Your task to perform on an android device: empty trash in the gmail app Image 0: 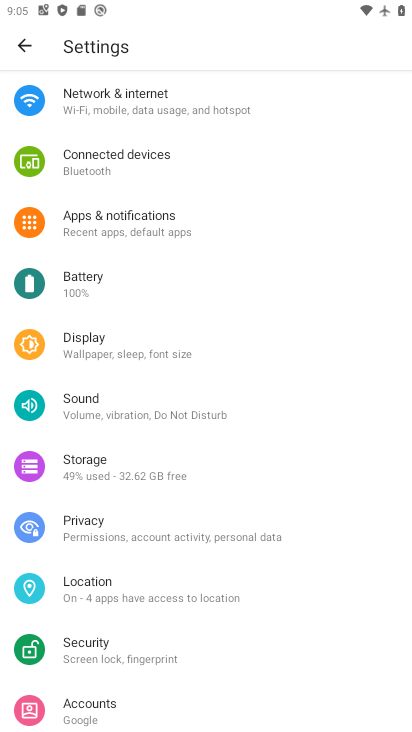
Step 0: press home button
Your task to perform on an android device: empty trash in the gmail app Image 1: 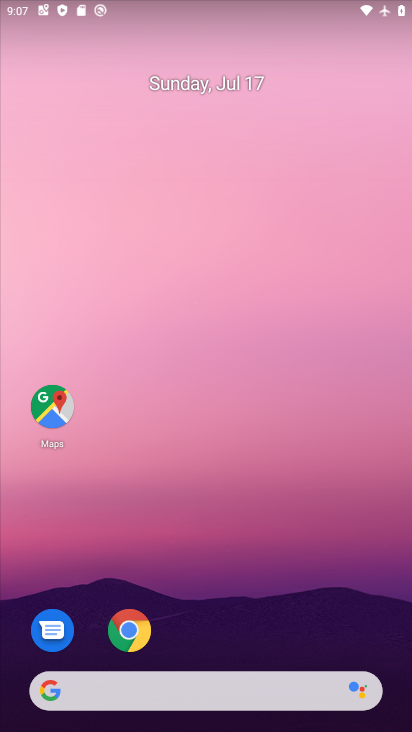
Step 1: drag from (272, 612) to (244, 364)
Your task to perform on an android device: empty trash in the gmail app Image 2: 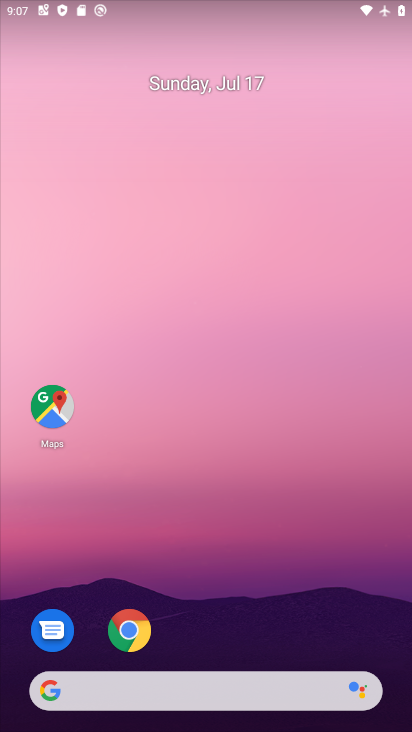
Step 2: drag from (218, 600) to (245, 114)
Your task to perform on an android device: empty trash in the gmail app Image 3: 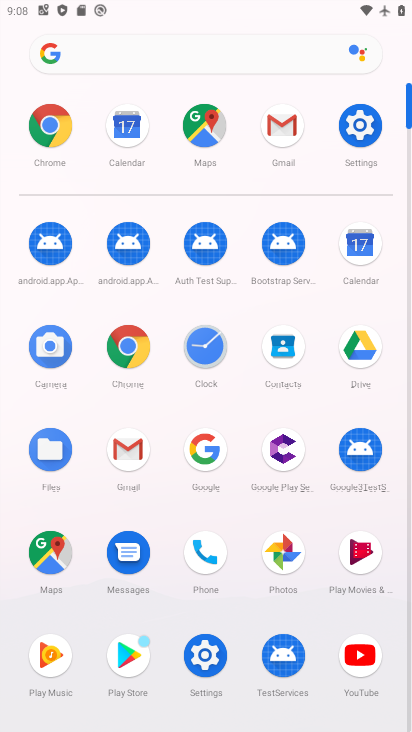
Step 3: click (277, 151)
Your task to perform on an android device: empty trash in the gmail app Image 4: 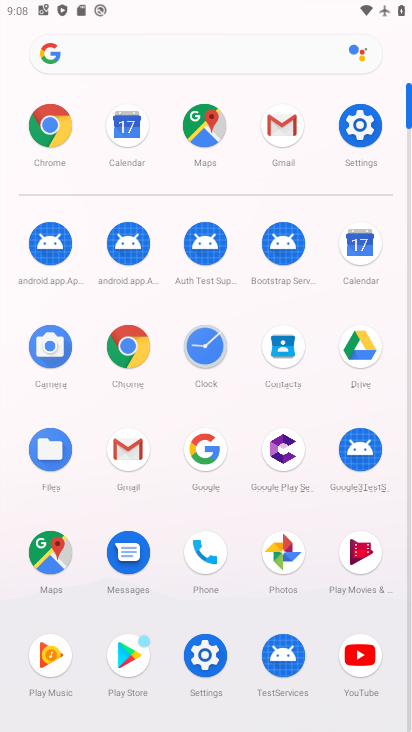
Step 4: click (277, 151)
Your task to perform on an android device: empty trash in the gmail app Image 5: 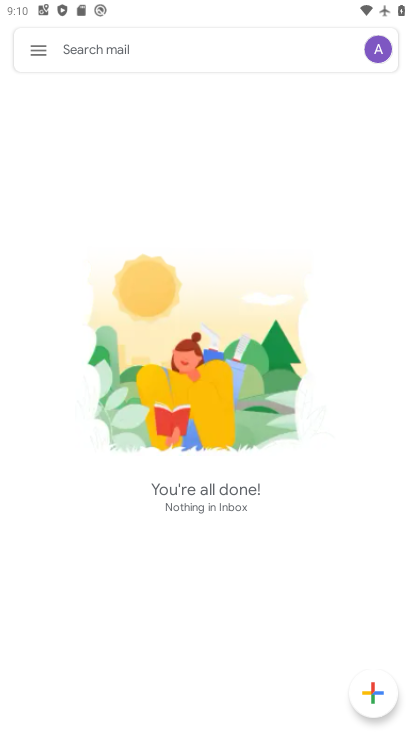
Step 5: task complete